Your task to perform on an android device: Play the latest video from the BBC Image 0: 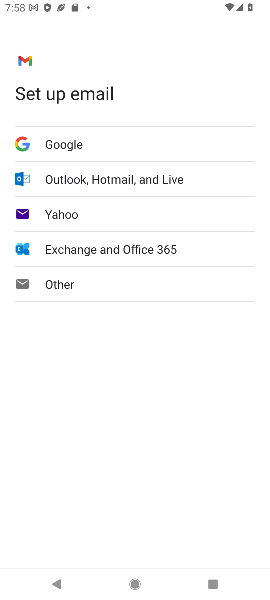
Step 0: press home button
Your task to perform on an android device: Play the latest video from the BBC Image 1: 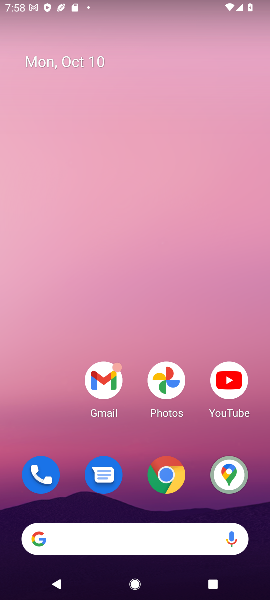
Step 1: drag from (133, 505) to (115, 151)
Your task to perform on an android device: Play the latest video from the BBC Image 2: 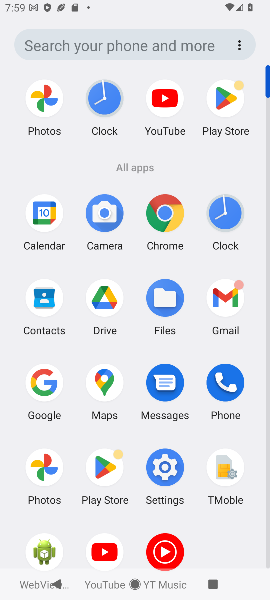
Step 2: click (171, 109)
Your task to perform on an android device: Play the latest video from the BBC Image 3: 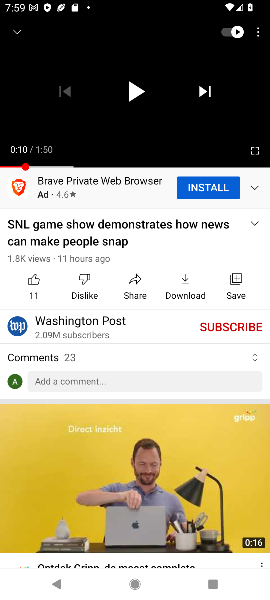
Step 3: click (15, 30)
Your task to perform on an android device: Play the latest video from the BBC Image 4: 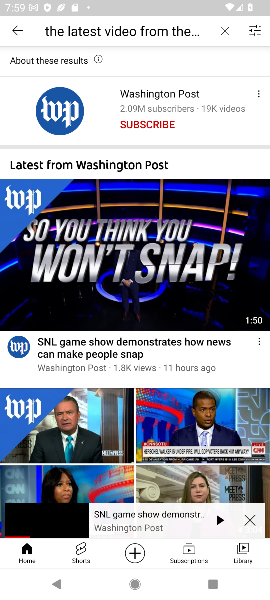
Step 4: click (245, 512)
Your task to perform on an android device: Play the latest video from the BBC Image 5: 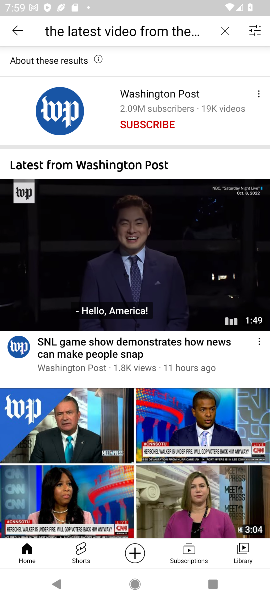
Step 5: click (223, 25)
Your task to perform on an android device: Play the latest video from the BBC Image 6: 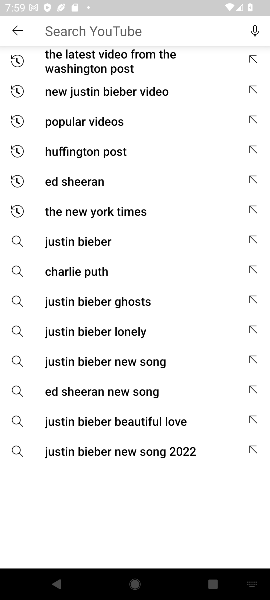
Step 6: type "latest video from the BBC"
Your task to perform on an android device: Play the latest video from the BBC Image 7: 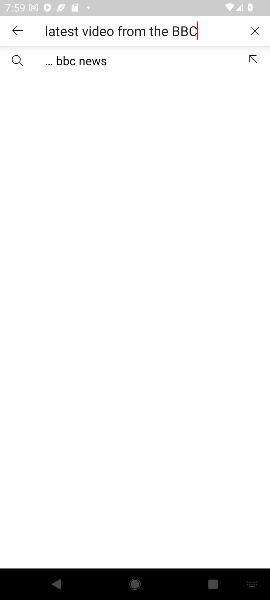
Step 7: click (110, 57)
Your task to perform on an android device: Play the latest video from the BBC Image 8: 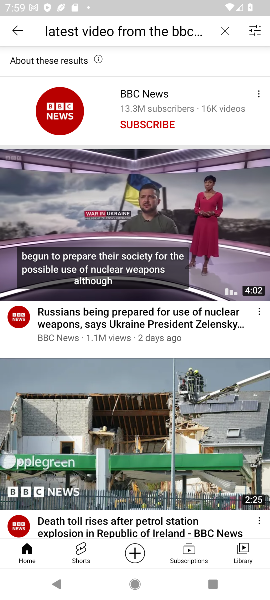
Step 8: click (165, 224)
Your task to perform on an android device: Play the latest video from the BBC Image 9: 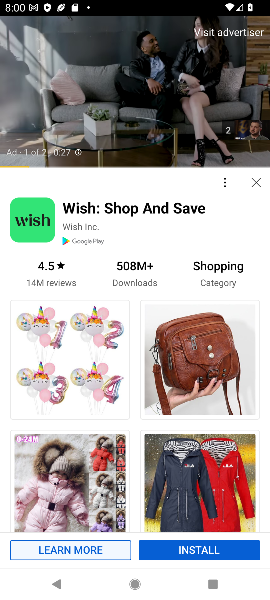
Step 9: click (257, 181)
Your task to perform on an android device: Play the latest video from the BBC Image 10: 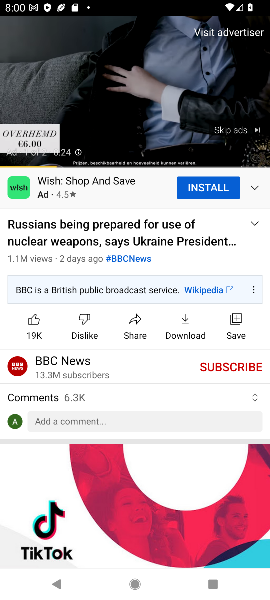
Step 10: click (248, 130)
Your task to perform on an android device: Play the latest video from the BBC Image 11: 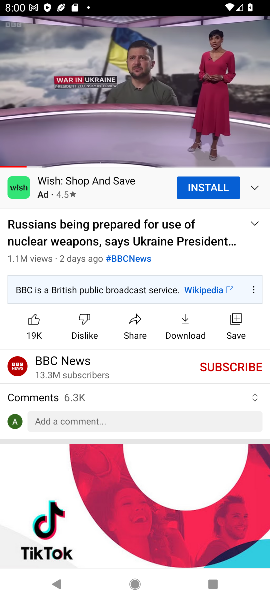
Step 11: task complete